Your task to perform on an android device: open chrome privacy settings Image 0: 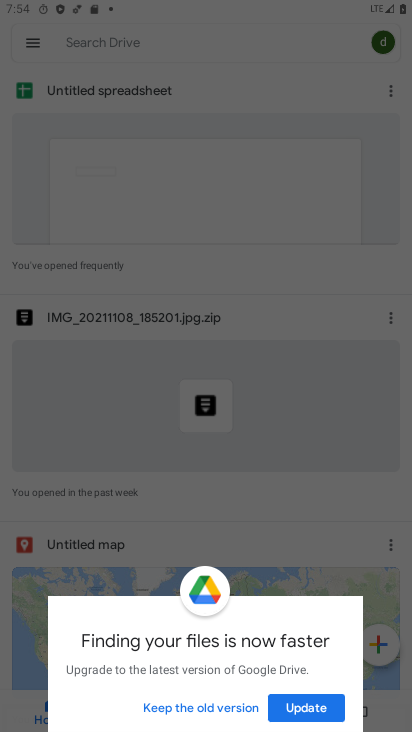
Step 0: press home button
Your task to perform on an android device: open chrome privacy settings Image 1: 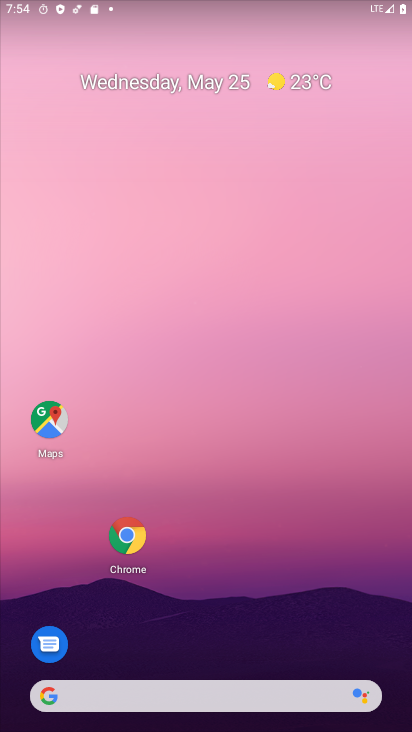
Step 1: click (139, 546)
Your task to perform on an android device: open chrome privacy settings Image 2: 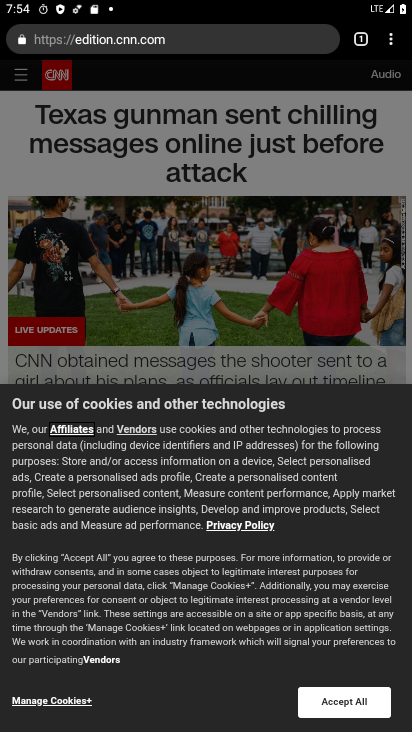
Step 2: click (392, 41)
Your task to perform on an android device: open chrome privacy settings Image 3: 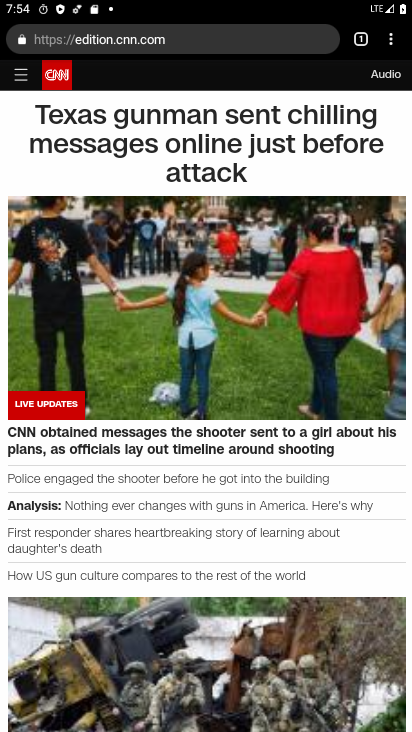
Step 3: drag from (389, 52) to (270, 441)
Your task to perform on an android device: open chrome privacy settings Image 4: 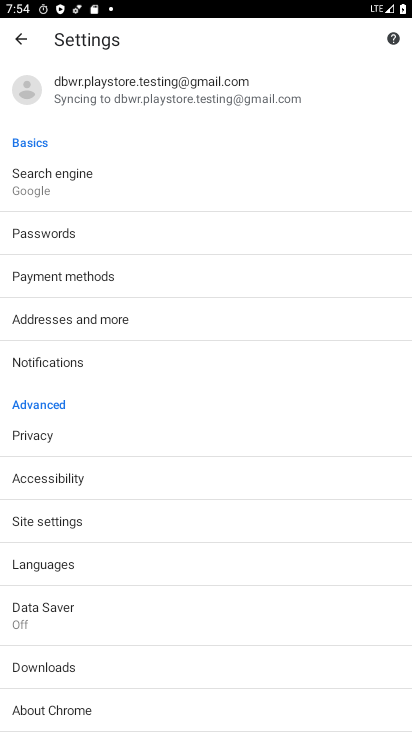
Step 4: click (52, 436)
Your task to perform on an android device: open chrome privacy settings Image 5: 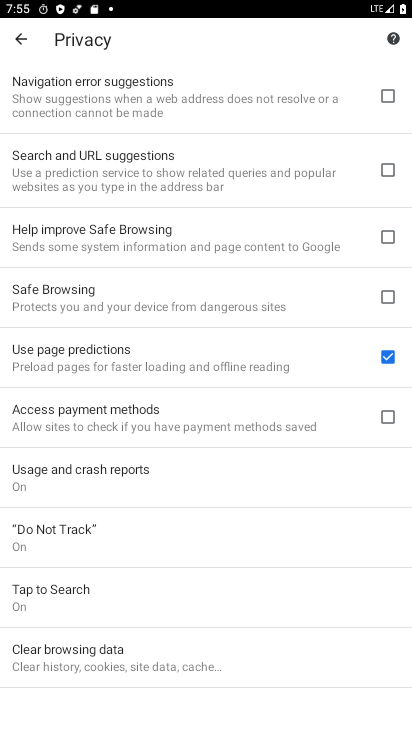
Step 5: task complete